Your task to perform on an android device: set default search engine in the chrome app Image 0: 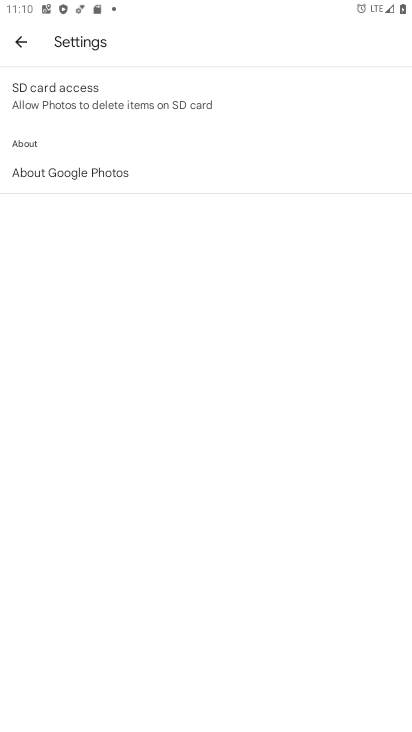
Step 0: press home button
Your task to perform on an android device: set default search engine in the chrome app Image 1: 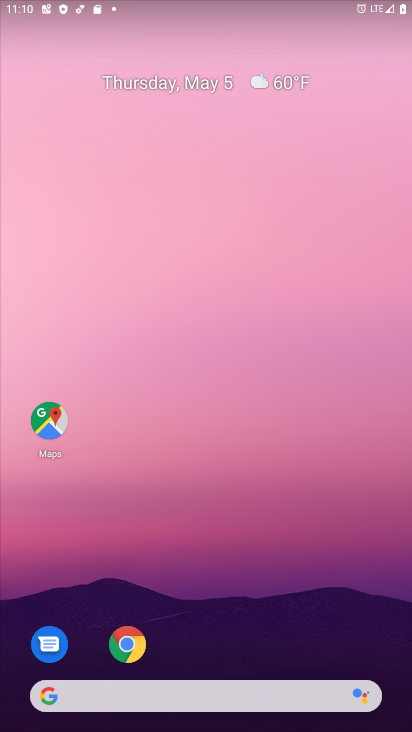
Step 1: click (129, 642)
Your task to perform on an android device: set default search engine in the chrome app Image 2: 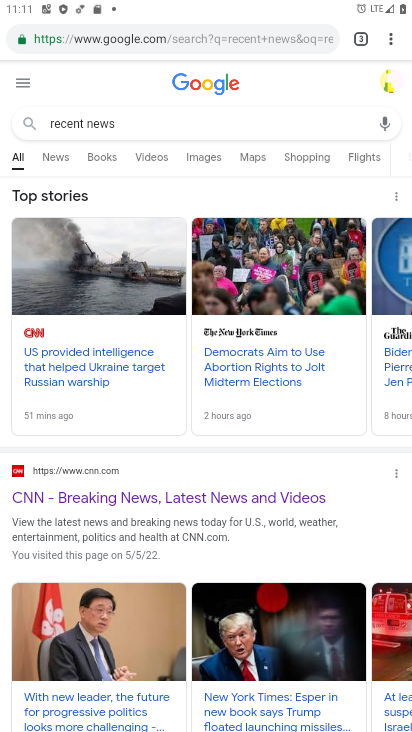
Step 2: drag from (395, 42) to (267, 431)
Your task to perform on an android device: set default search engine in the chrome app Image 3: 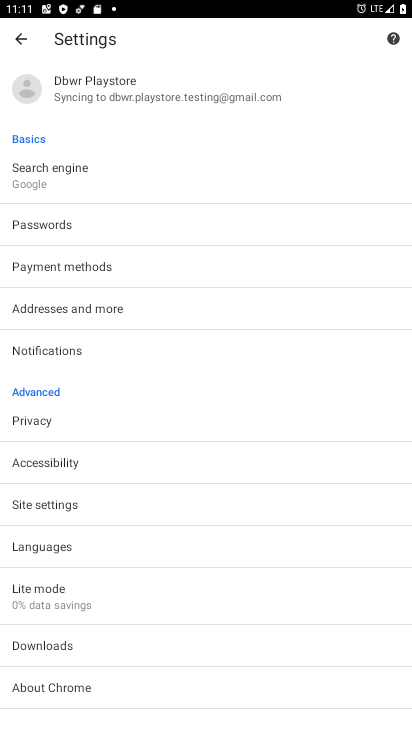
Step 3: click (101, 184)
Your task to perform on an android device: set default search engine in the chrome app Image 4: 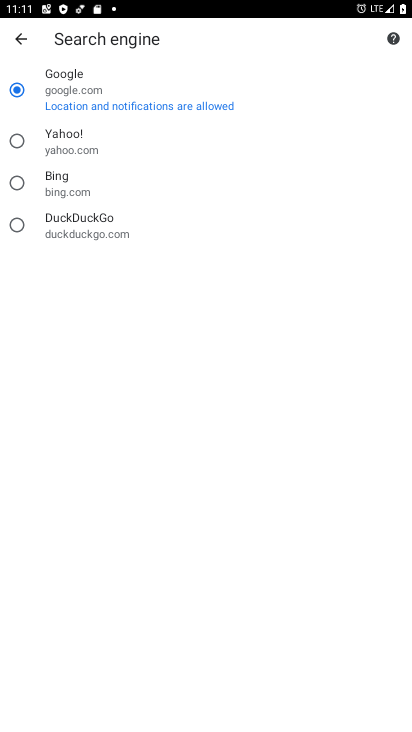
Step 4: click (100, 154)
Your task to perform on an android device: set default search engine in the chrome app Image 5: 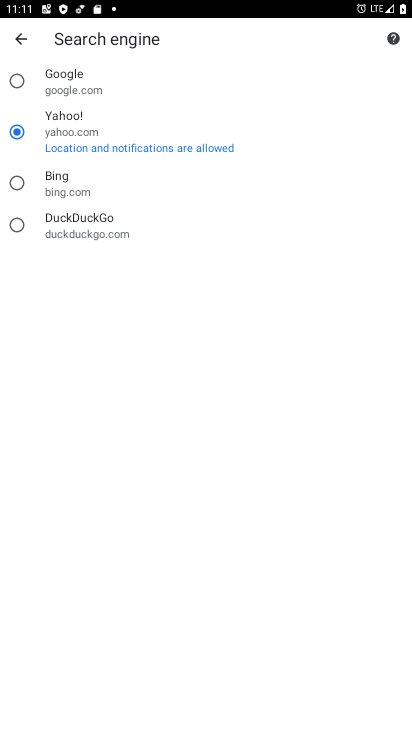
Step 5: task complete